Your task to perform on an android device: turn off priority inbox in the gmail app Image 0: 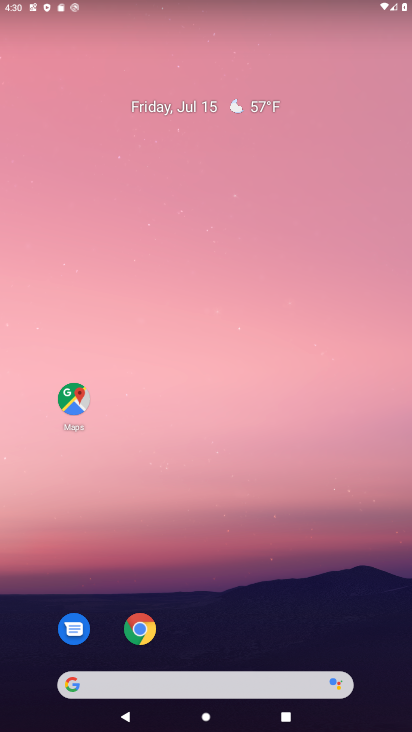
Step 0: press home button
Your task to perform on an android device: turn off priority inbox in the gmail app Image 1: 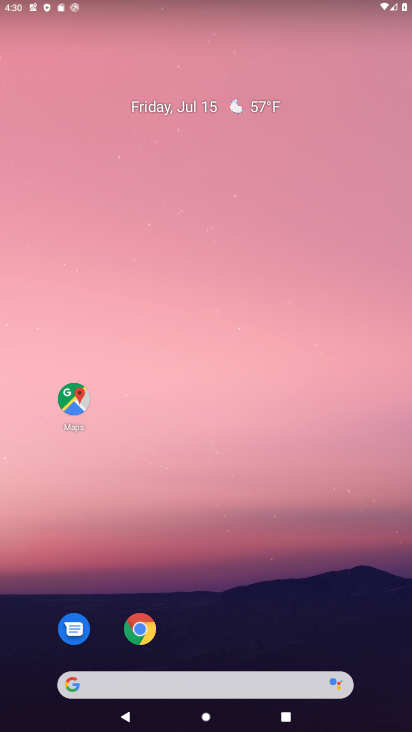
Step 1: drag from (226, 654) to (272, 114)
Your task to perform on an android device: turn off priority inbox in the gmail app Image 2: 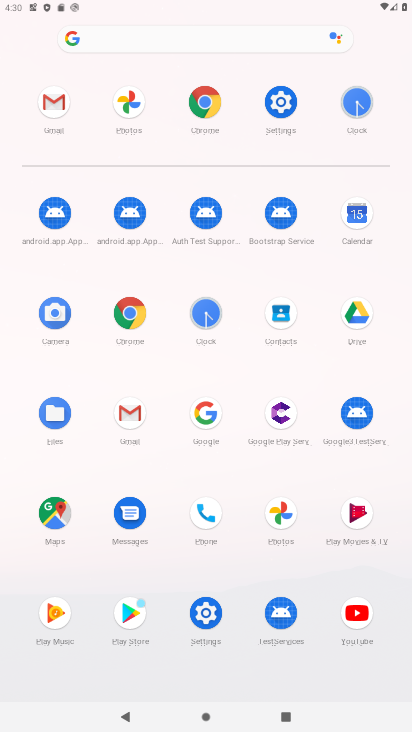
Step 2: click (53, 94)
Your task to perform on an android device: turn off priority inbox in the gmail app Image 3: 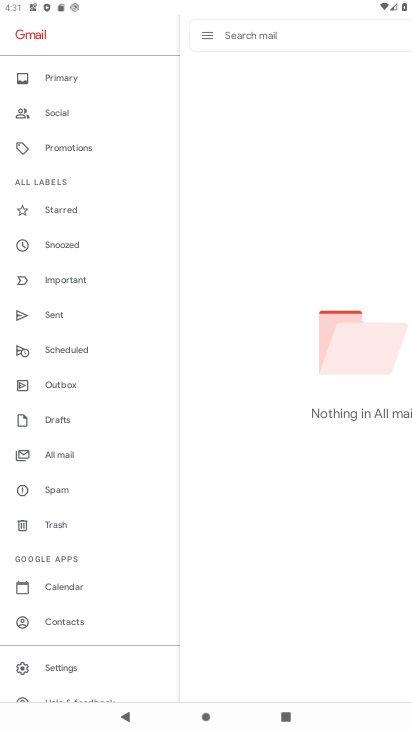
Step 3: click (61, 670)
Your task to perform on an android device: turn off priority inbox in the gmail app Image 4: 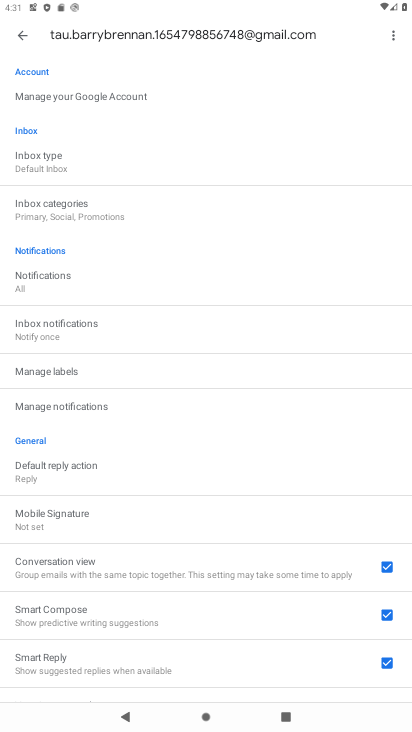
Step 4: click (52, 161)
Your task to perform on an android device: turn off priority inbox in the gmail app Image 5: 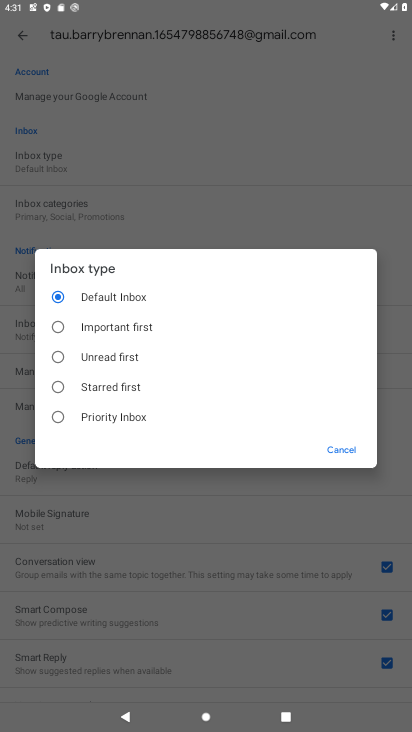
Step 5: task complete